Your task to perform on an android device: Open the web browser Image 0: 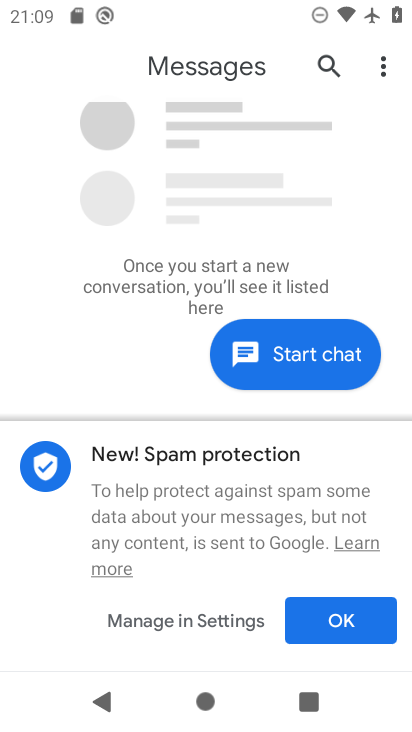
Step 0: press home button
Your task to perform on an android device: Open the web browser Image 1: 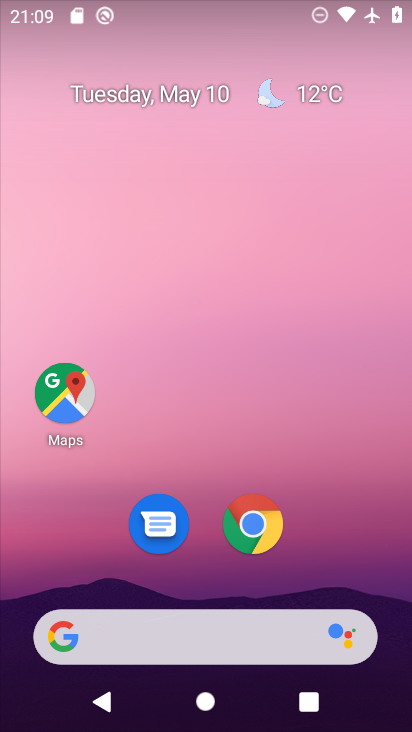
Step 1: click (195, 647)
Your task to perform on an android device: Open the web browser Image 2: 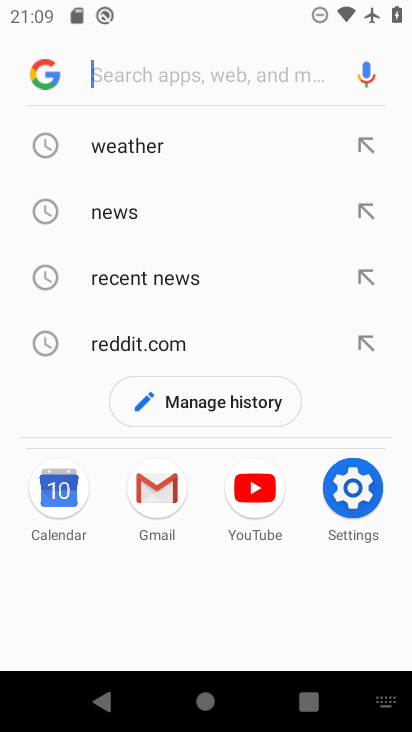
Step 2: task complete